Your task to perform on an android device: make emails show in primary in the gmail app Image 0: 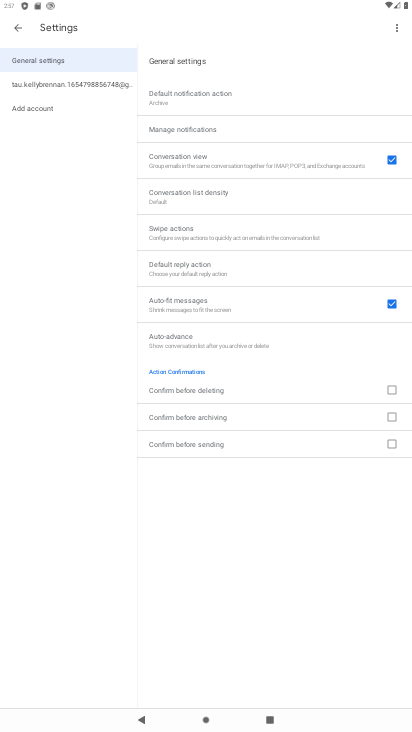
Step 0: press home button
Your task to perform on an android device: make emails show in primary in the gmail app Image 1: 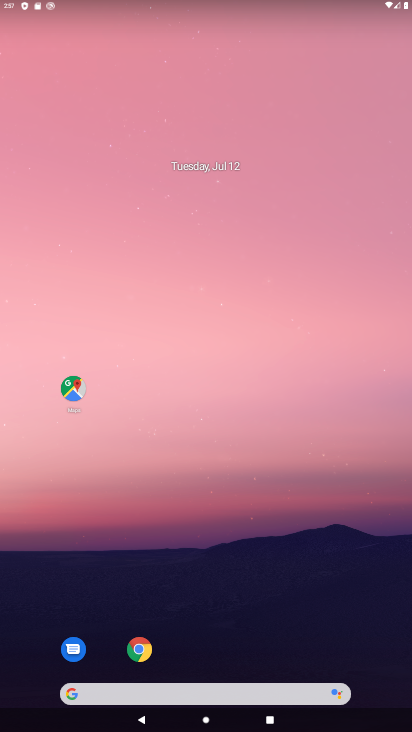
Step 1: drag from (225, 674) to (279, 48)
Your task to perform on an android device: make emails show in primary in the gmail app Image 2: 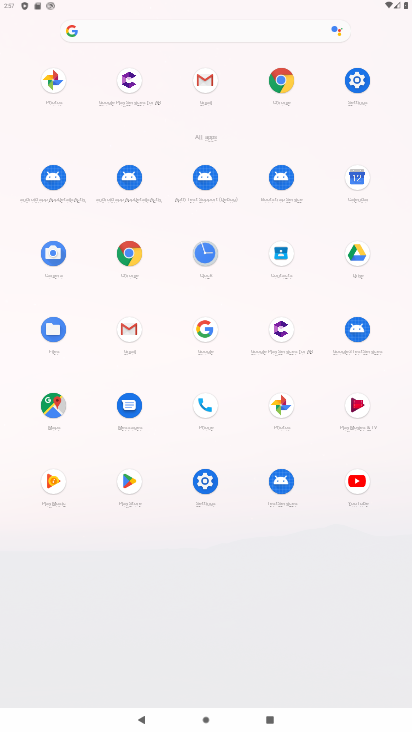
Step 2: click (130, 331)
Your task to perform on an android device: make emails show in primary in the gmail app Image 3: 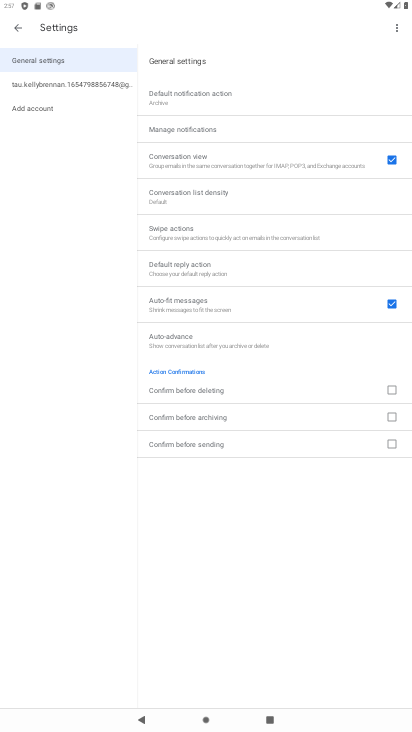
Step 3: click (40, 79)
Your task to perform on an android device: make emails show in primary in the gmail app Image 4: 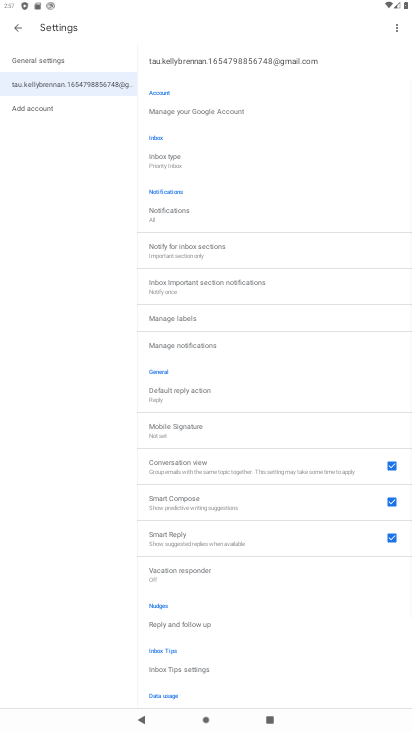
Step 4: click (174, 166)
Your task to perform on an android device: make emails show in primary in the gmail app Image 5: 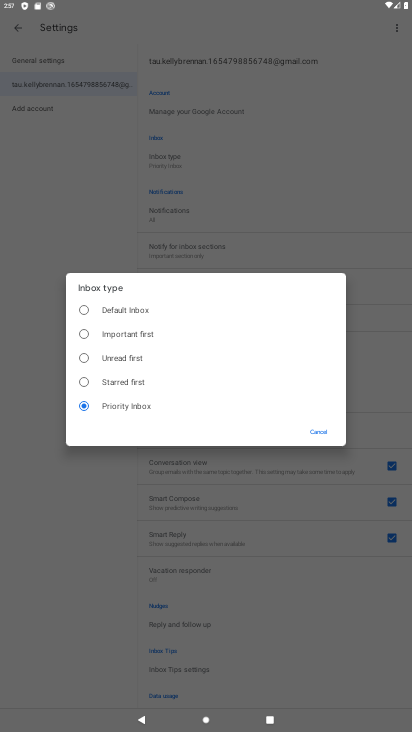
Step 5: click (127, 312)
Your task to perform on an android device: make emails show in primary in the gmail app Image 6: 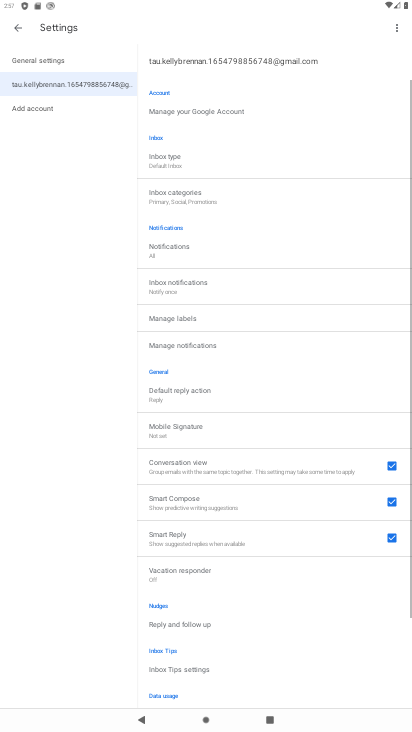
Step 6: click (169, 194)
Your task to perform on an android device: make emails show in primary in the gmail app Image 7: 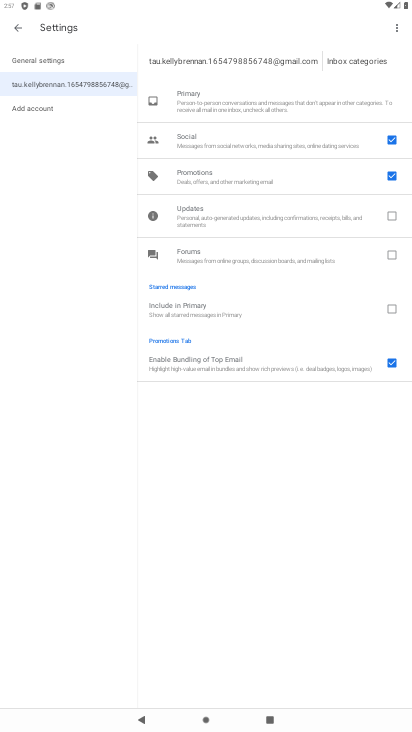
Step 7: click (393, 170)
Your task to perform on an android device: make emails show in primary in the gmail app Image 8: 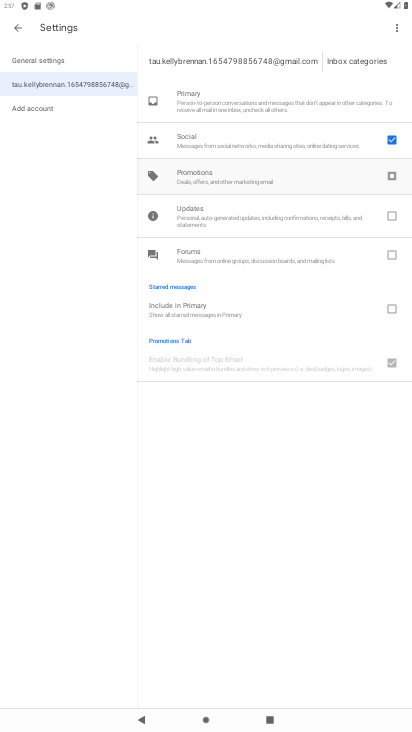
Step 8: click (395, 134)
Your task to perform on an android device: make emails show in primary in the gmail app Image 9: 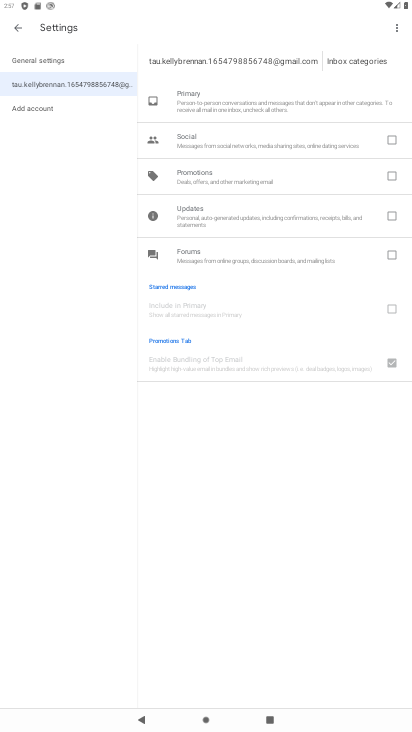
Step 9: click (104, 132)
Your task to perform on an android device: make emails show in primary in the gmail app Image 10: 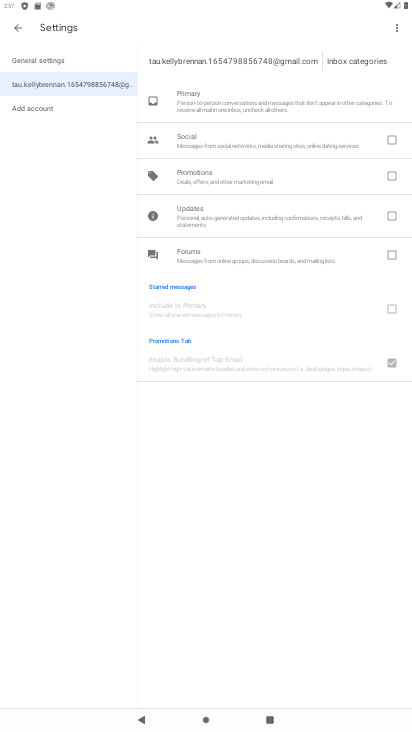
Step 10: click (123, 104)
Your task to perform on an android device: make emails show in primary in the gmail app Image 11: 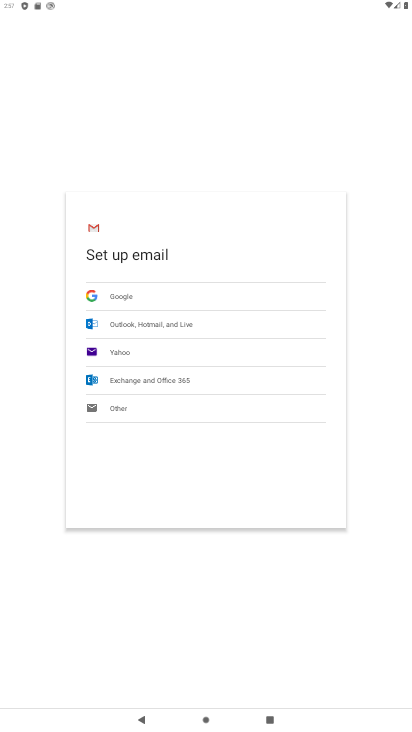
Step 11: task complete